Your task to perform on an android device: Open internet settings Image 0: 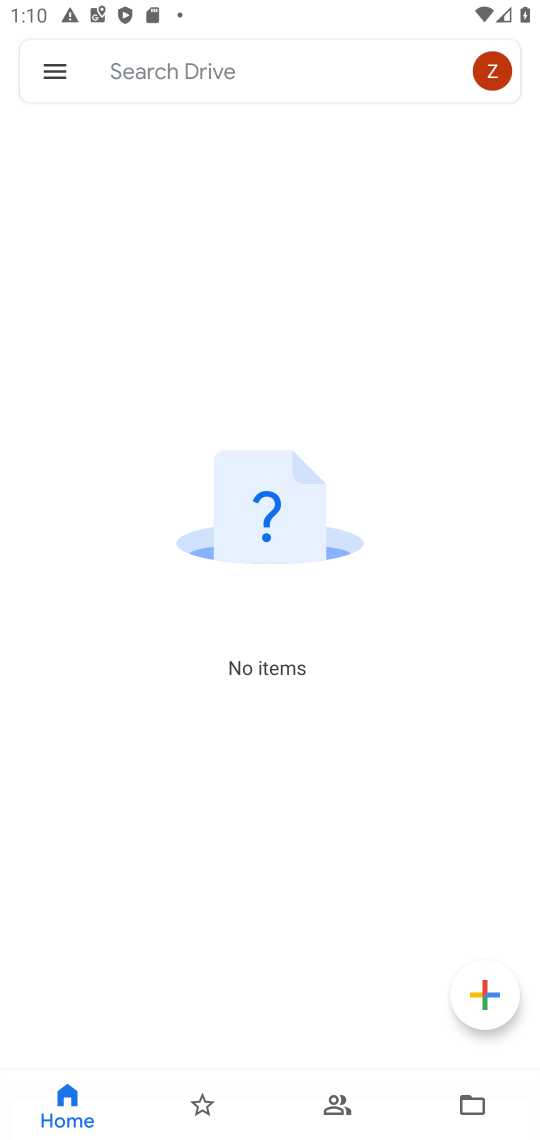
Step 0: press home button
Your task to perform on an android device: Open internet settings Image 1: 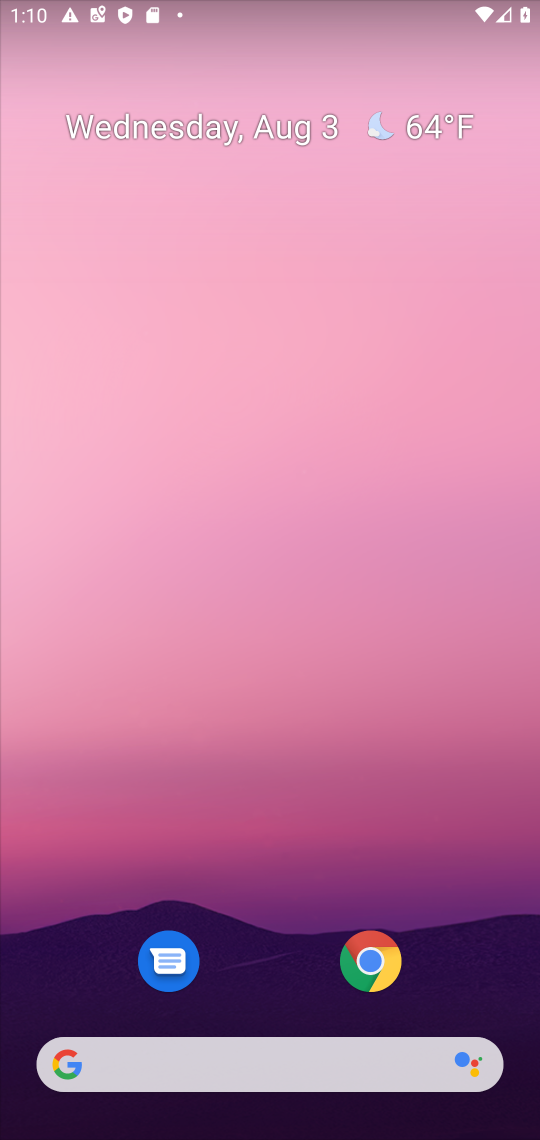
Step 1: drag from (257, 990) to (315, 52)
Your task to perform on an android device: Open internet settings Image 2: 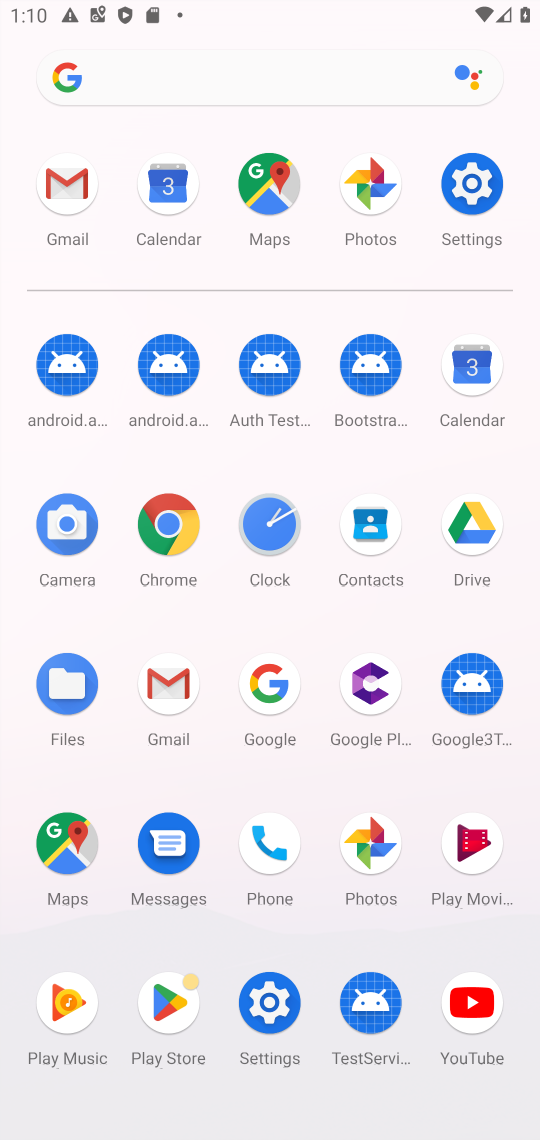
Step 2: click (470, 187)
Your task to perform on an android device: Open internet settings Image 3: 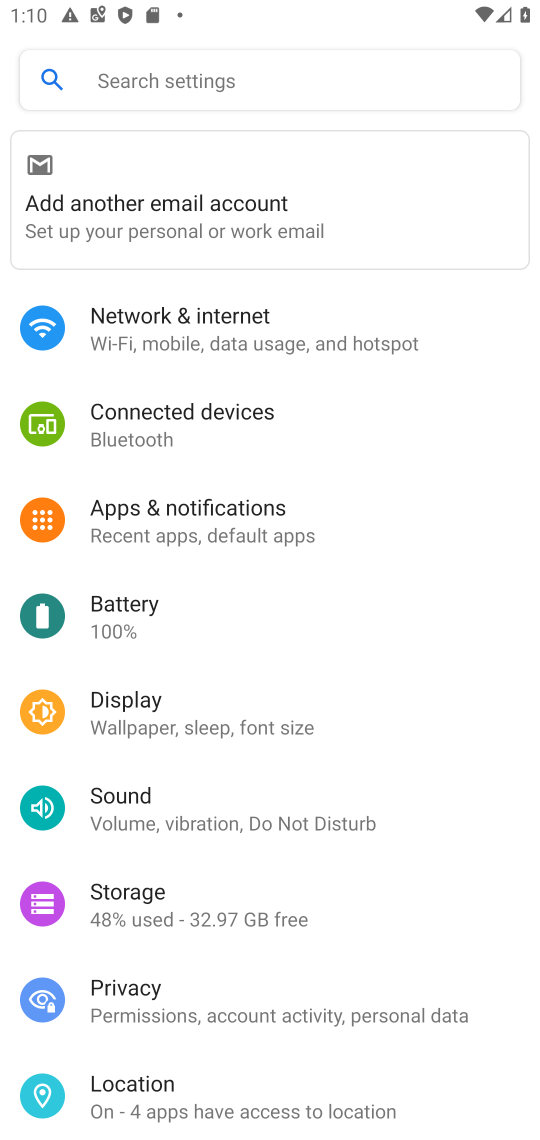
Step 3: click (183, 335)
Your task to perform on an android device: Open internet settings Image 4: 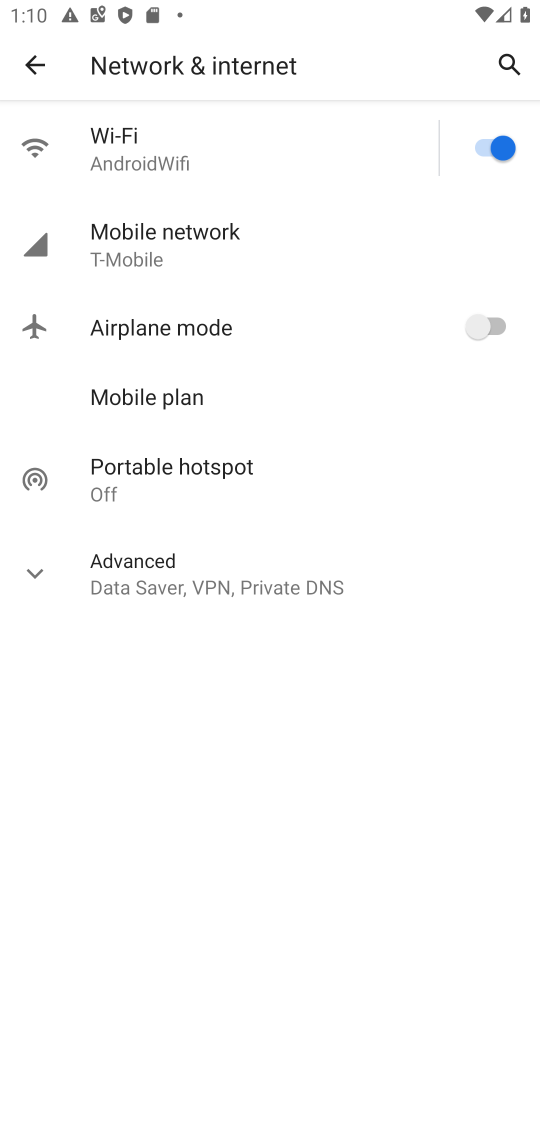
Step 4: click (33, 575)
Your task to perform on an android device: Open internet settings Image 5: 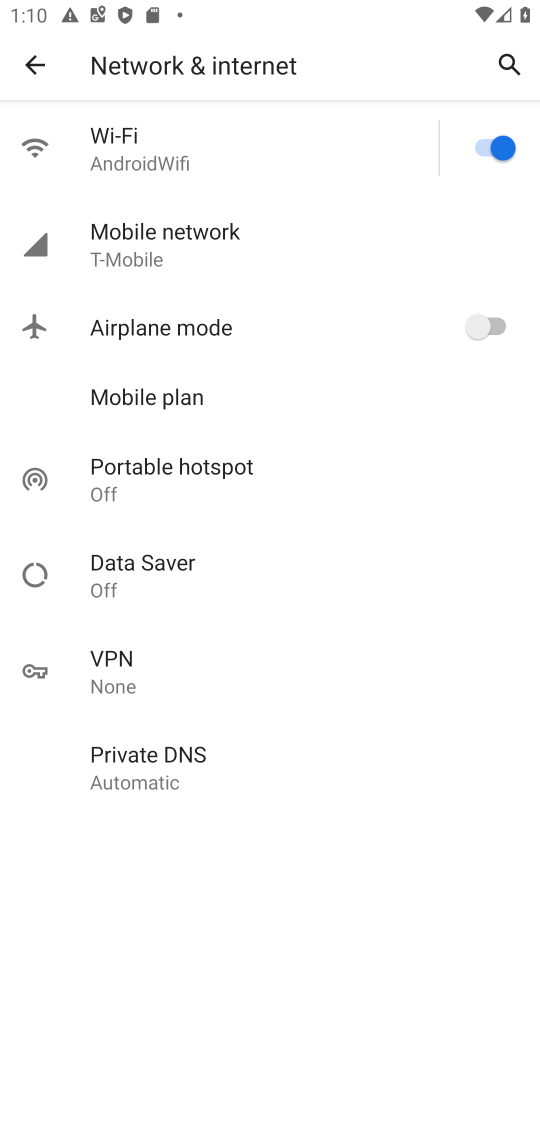
Step 5: task complete